Your task to perform on an android device: allow notifications from all sites in the chrome app Image 0: 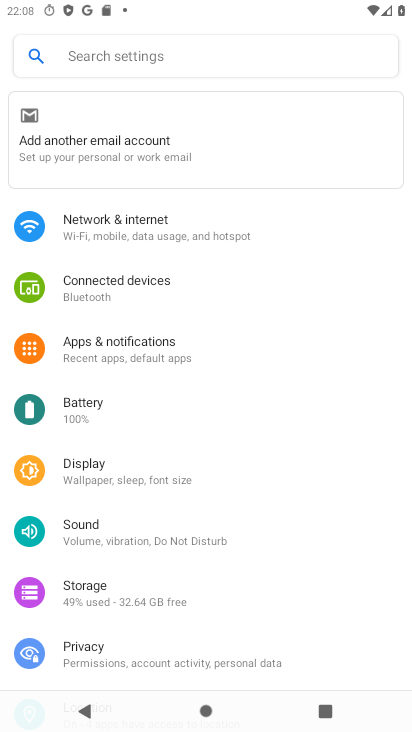
Step 0: press home button
Your task to perform on an android device: allow notifications from all sites in the chrome app Image 1: 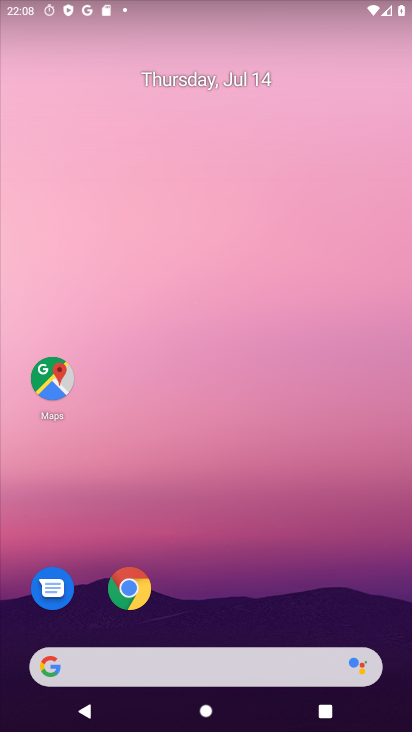
Step 1: drag from (271, 606) to (338, 113)
Your task to perform on an android device: allow notifications from all sites in the chrome app Image 2: 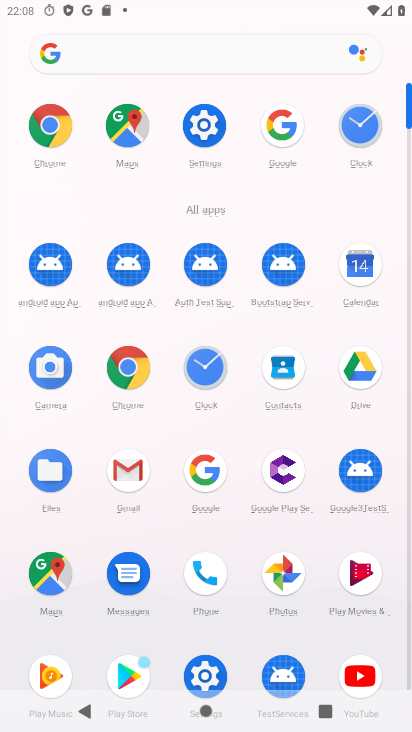
Step 2: click (45, 127)
Your task to perform on an android device: allow notifications from all sites in the chrome app Image 3: 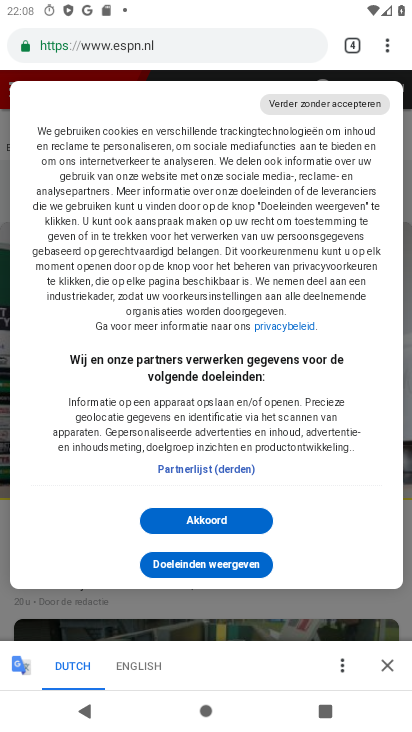
Step 3: click (385, 46)
Your task to perform on an android device: allow notifications from all sites in the chrome app Image 4: 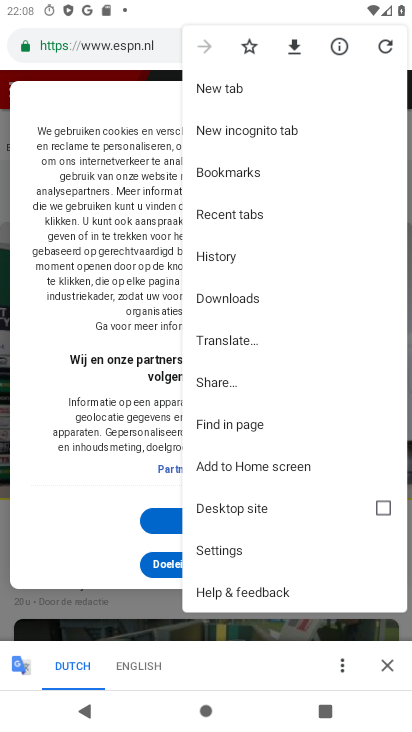
Step 4: click (225, 550)
Your task to perform on an android device: allow notifications from all sites in the chrome app Image 5: 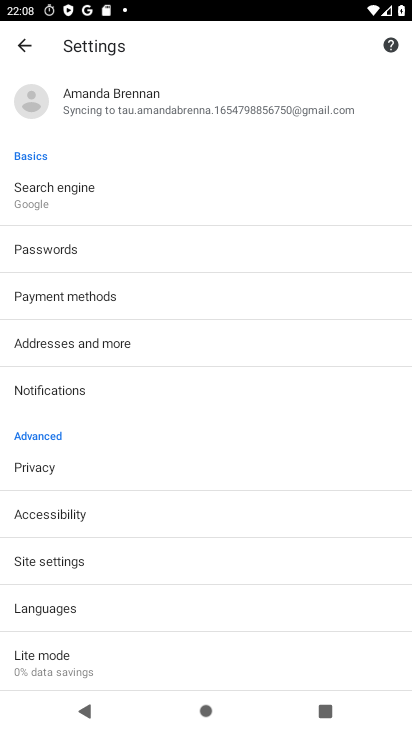
Step 5: drag from (128, 594) to (159, 353)
Your task to perform on an android device: allow notifications from all sites in the chrome app Image 6: 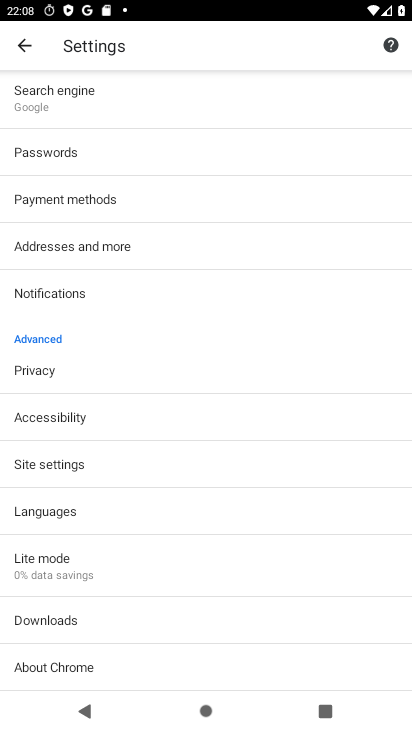
Step 6: click (74, 459)
Your task to perform on an android device: allow notifications from all sites in the chrome app Image 7: 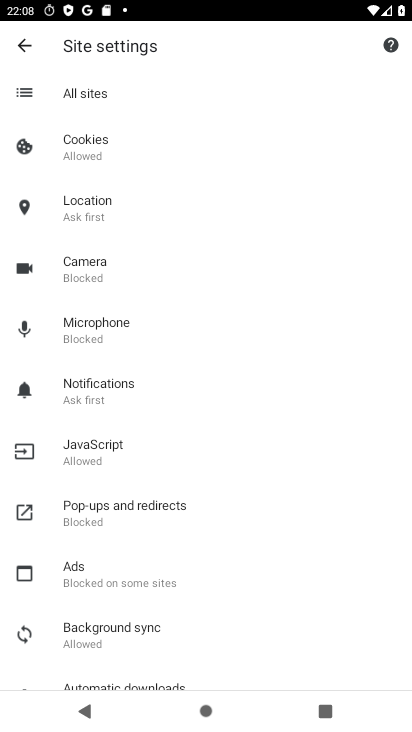
Step 7: click (107, 393)
Your task to perform on an android device: allow notifications from all sites in the chrome app Image 8: 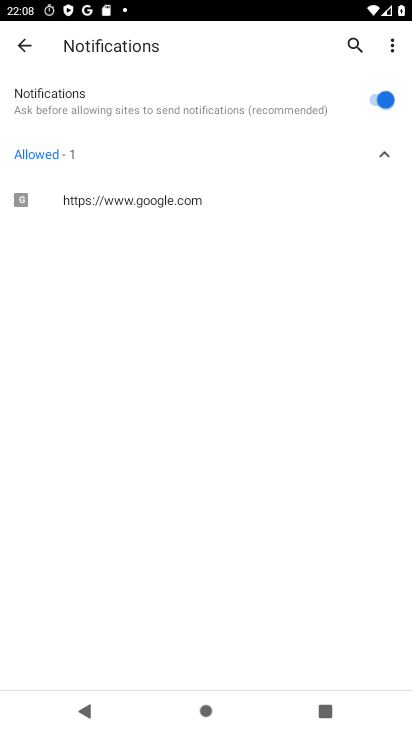
Step 8: task complete